Your task to perform on an android device: Open my contact list Image 0: 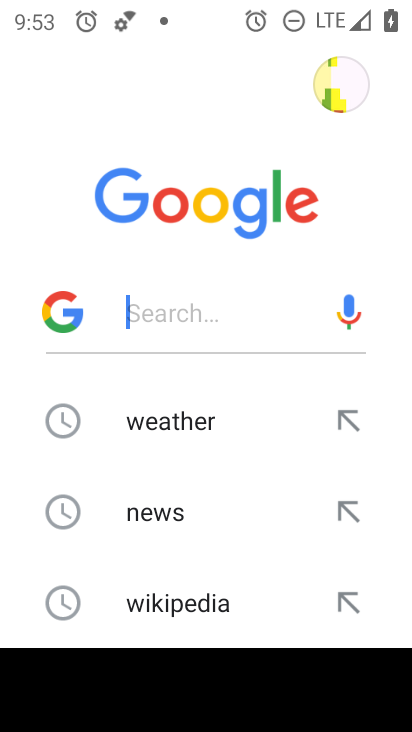
Step 0: press home button
Your task to perform on an android device: Open my contact list Image 1: 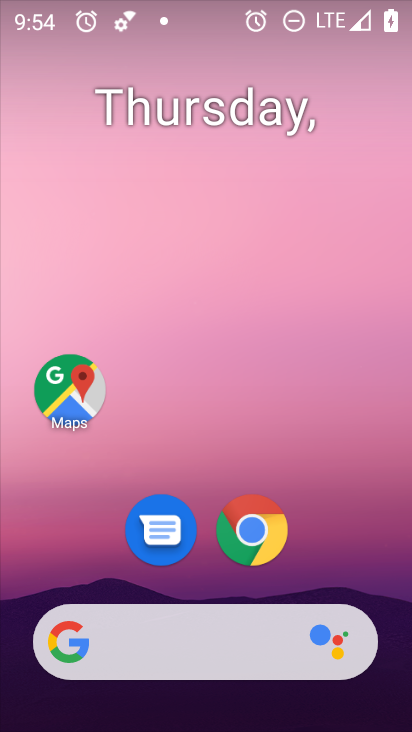
Step 1: drag from (333, 538) to (251, 71)
Your task to perform on an android device: Open my contact list Image 2: 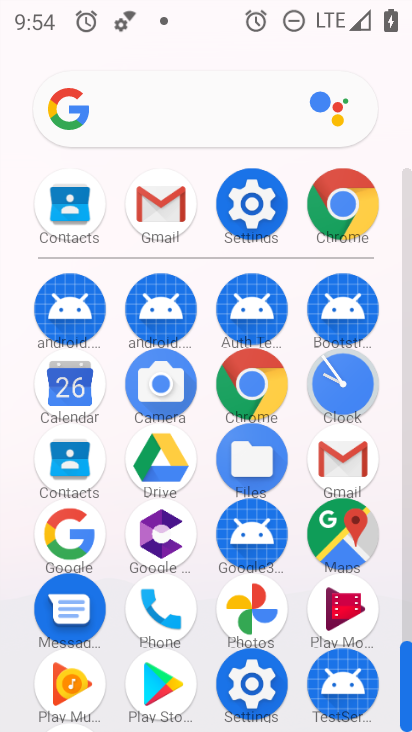
Step 2: click (67, 194)
Your task to perform on an android device: Open my contact list Image 3: 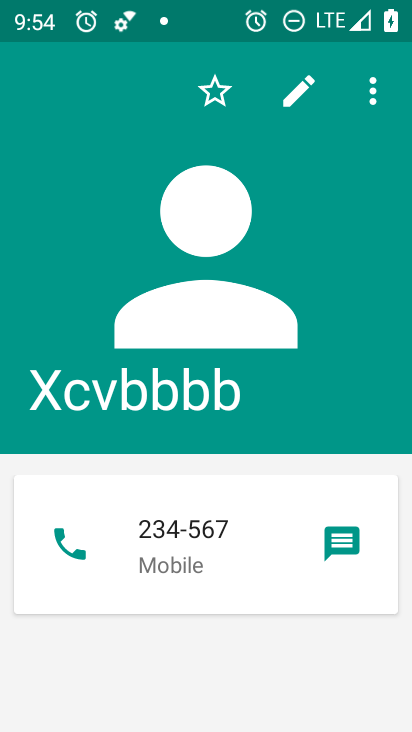
Step 3: task complete